Your task to perform on an android device: set the stopwatch Image 0: 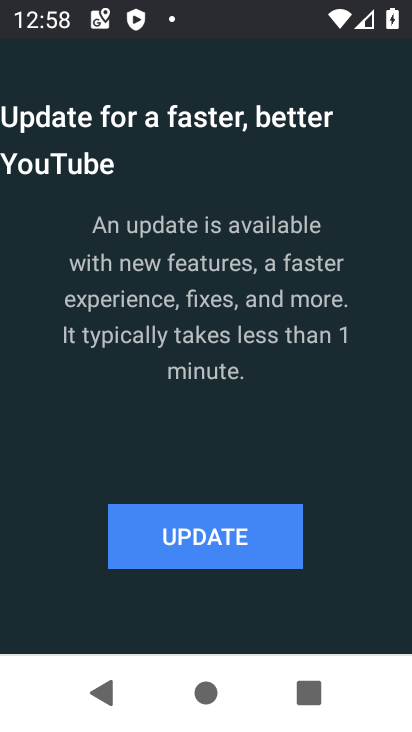
Step 0: press home button
Your task to perform on an android device: set the stopwatch Image 1: 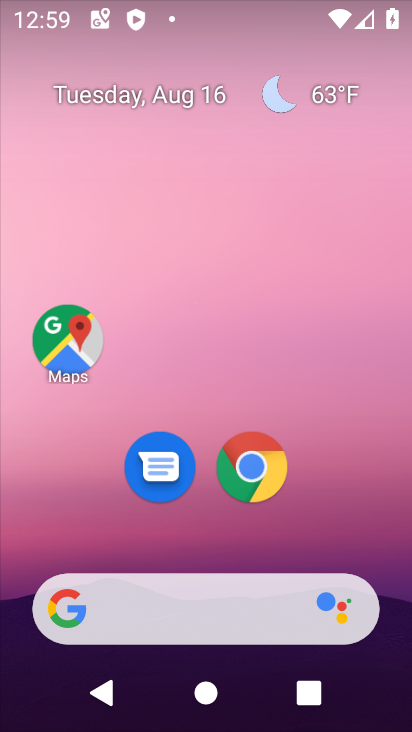
Step 1: drag from (337, 518) to (307, 97)
Your task to perform on an android device: set the stopwatch Image 2: 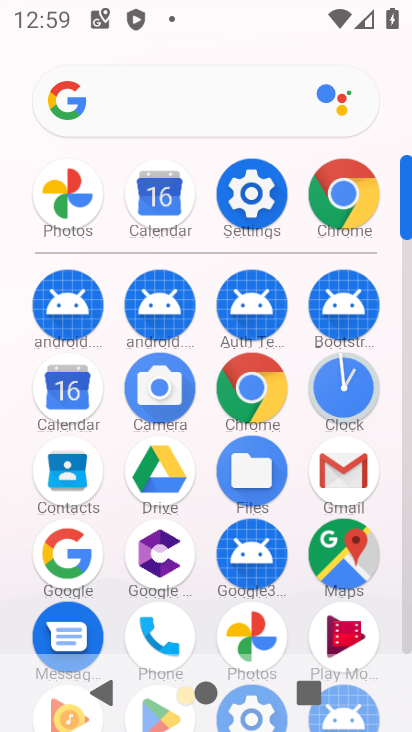
Step 2: click (326, 401)
Your task to perform on an android device: set the stopwatch Image 3: 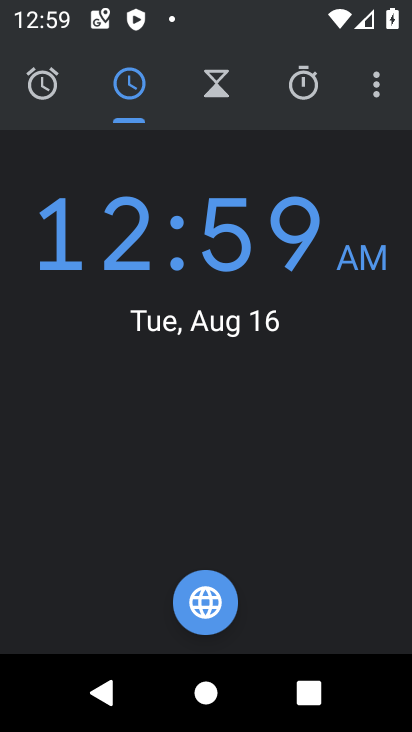
Step 3: click (303, 77)
Your task to perform on an android device: set the stopwatch Image 4: 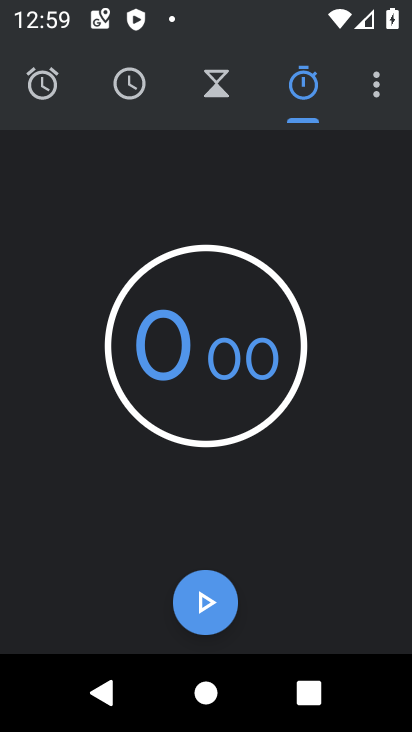
Step 4: click (213, 607)
Your task to perform on an android device: set the stopwatch Image 5: 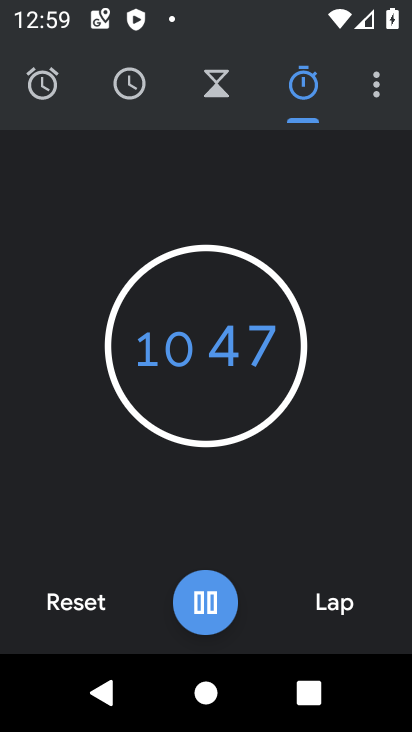
Step 5: task complete